Your task to perform on an android device: What's the weather going to be tomorrow? Image 0: 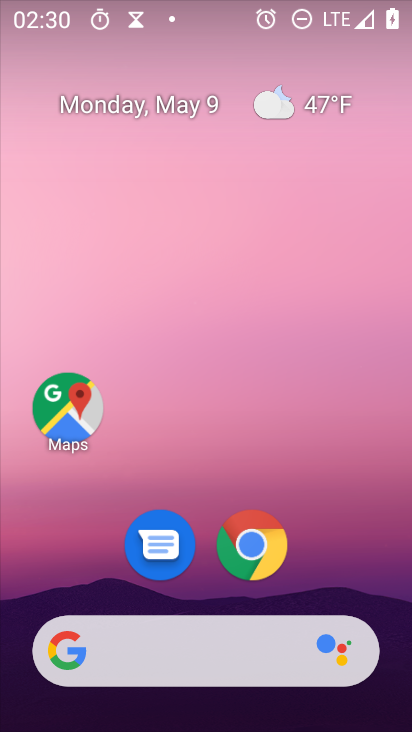
Step 0: drag from (347, 617) to (410, 364)
Your task to perform on an android device: What's the weather going to be tomorrow? Image 1: 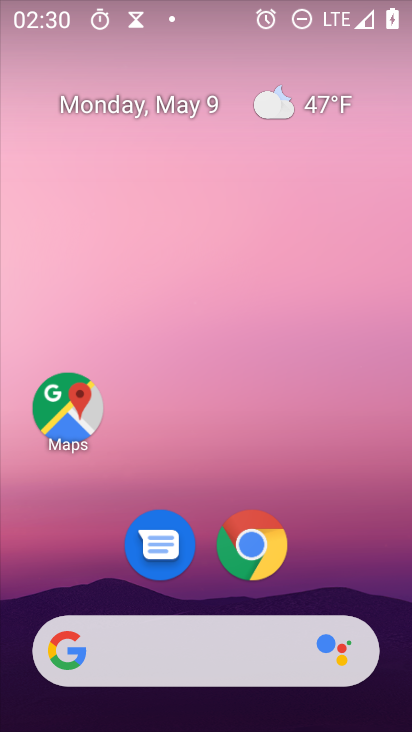
Step 1: drag from (318, 620) to (376, 67)
Your task to perform on an android device: What's the weather going to be tomorrow? Image 2: 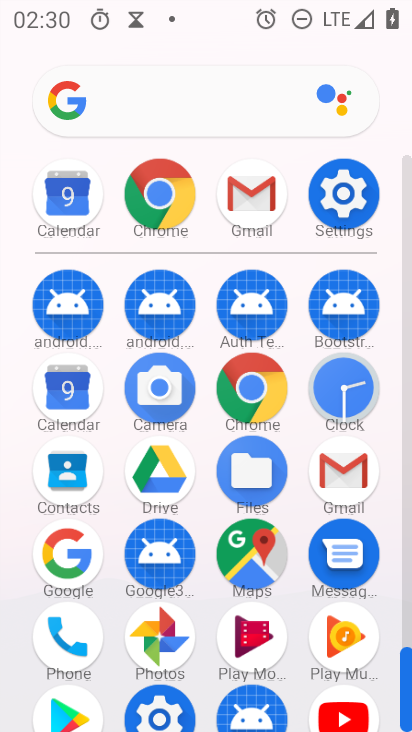
Step 2: click (261, 391)
Your task to perform on an android device: What's the weather going to be tomorrow? Image 3: 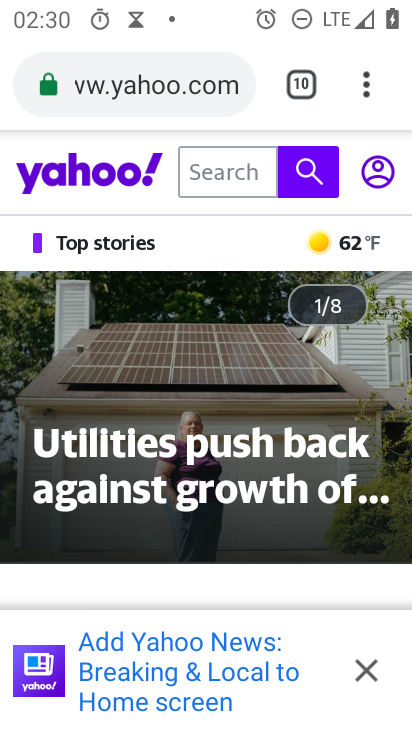
Step 3: click (225, 102)
Your task to perform on an android device: What's the weather going to be tomorrow? Image 4: 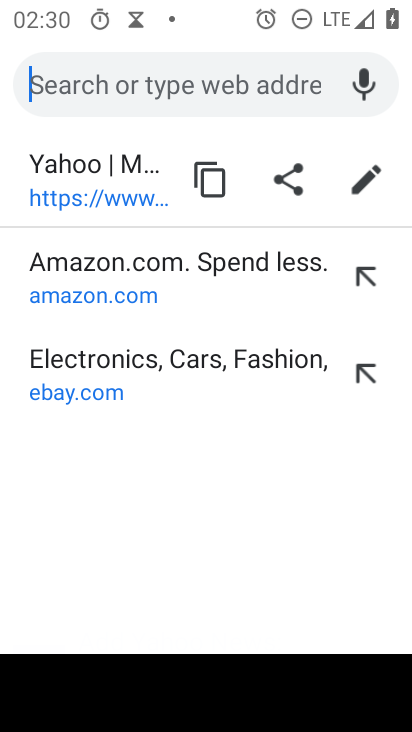
Step 4: click (111, 103)
Your task to perform on an android device: What's the weather going to be tomorrow? Image 5: 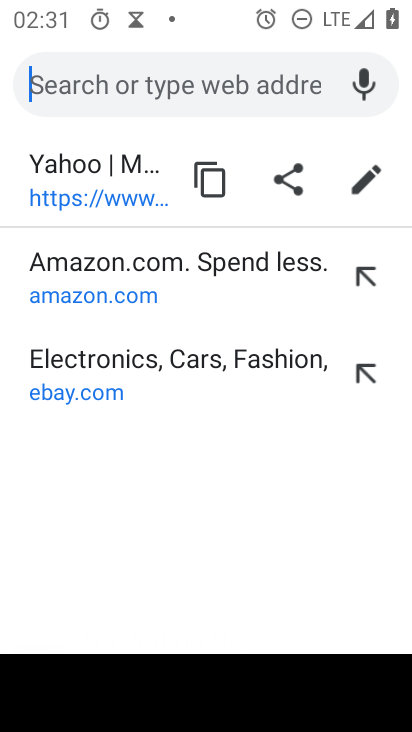
Step 5: type "weather going to be tomorrow"
Your task to perform on an android device: What's the weather going to be tomorrow? Image 6: 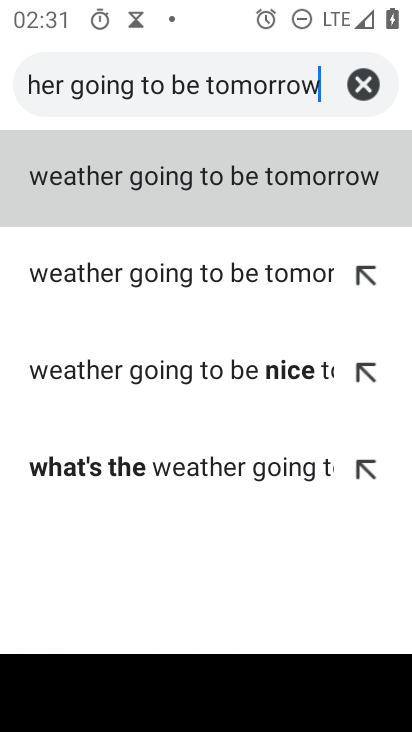
Step 6: click (325, 195)
Your task to perform on an android device: What's the weather going to be tomorrow? Image 7: 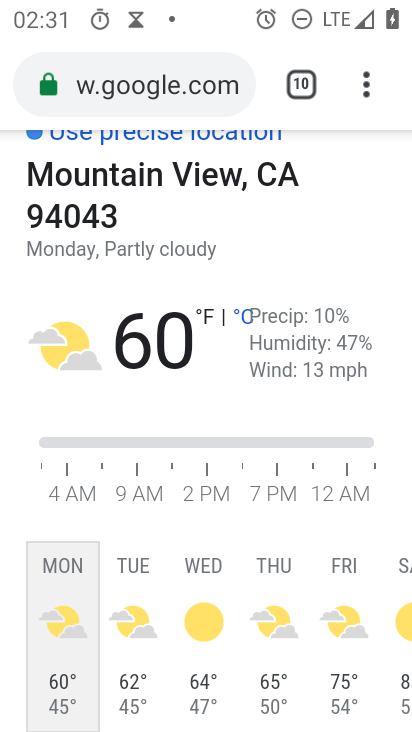
Step 7: task complete